Your task to perform on an android device: open a bookmark in the chrome app Image 0: 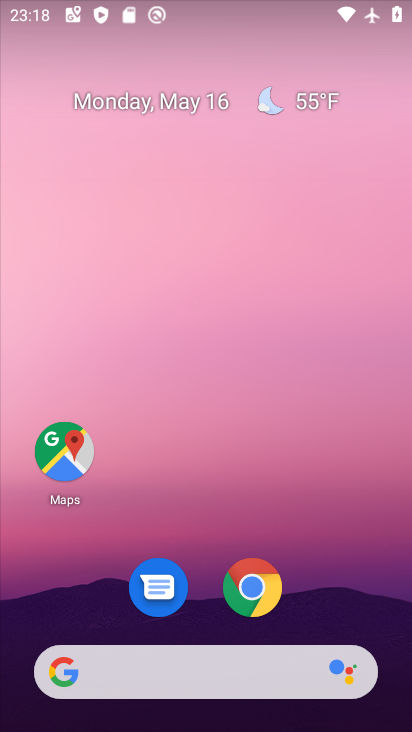
Step 0: drag from (305, 557) to (227, 69)
Your task to perform on an android device: open a bookmark in the chrome app Image 1: 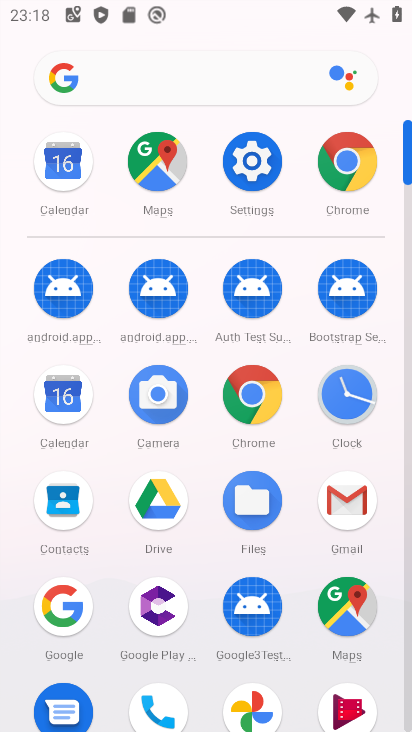
Step 1: drag from (24, 595) to (23, 310)
Your task to perform on an android device: open a bookmark in the chrome app Image 2: 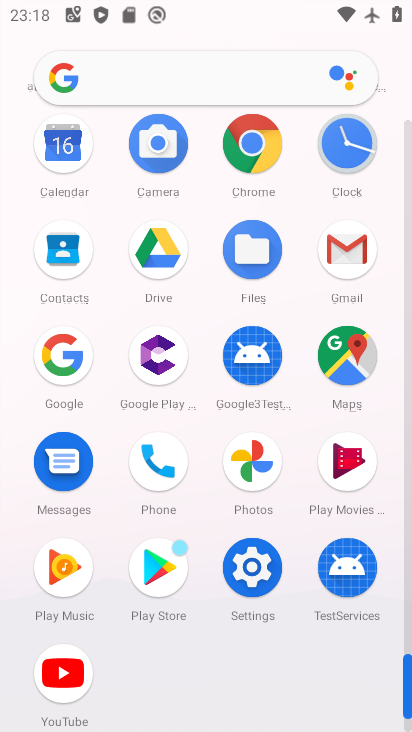
Step 2: click (251, 135)
Your task to perform on an android device: open a bookmark in the chrome app Image 3: 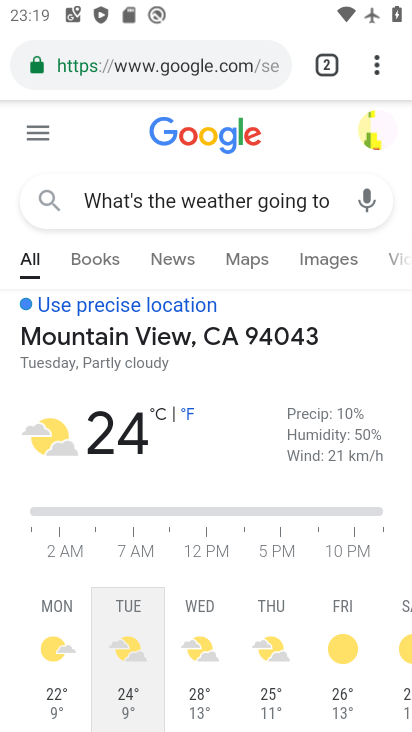
Step 3: task complete